Your task to perform on an android device: change the upload size in google photos Image 0: 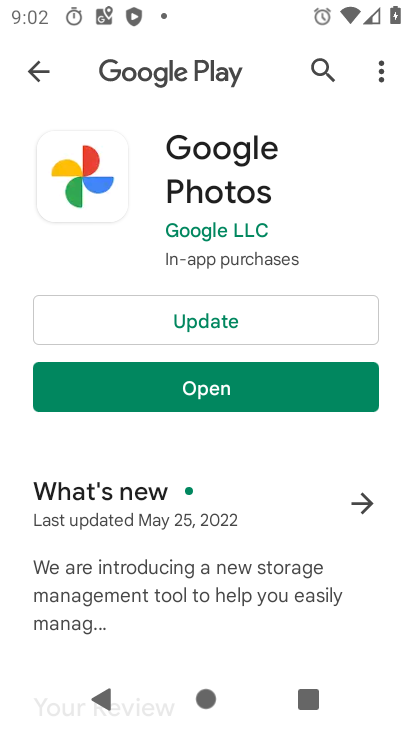
Step 0: click (245, 393)
Your task to perform on an android device: change the upload size in google photos Image 1: 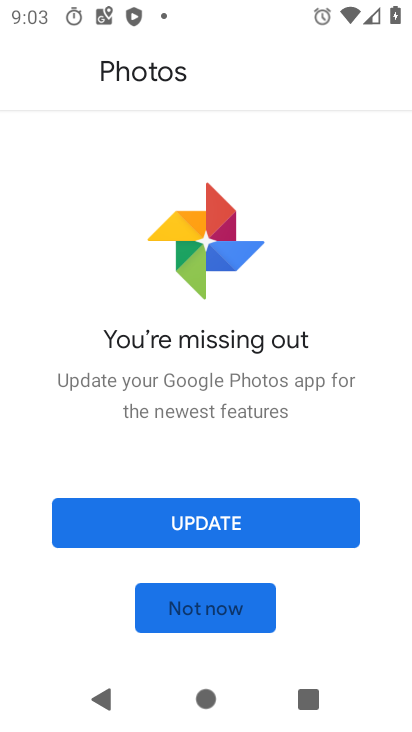
Step 1: click (210, 614)
Your task to perform on an android device: change the upload size in google photos Image 2: 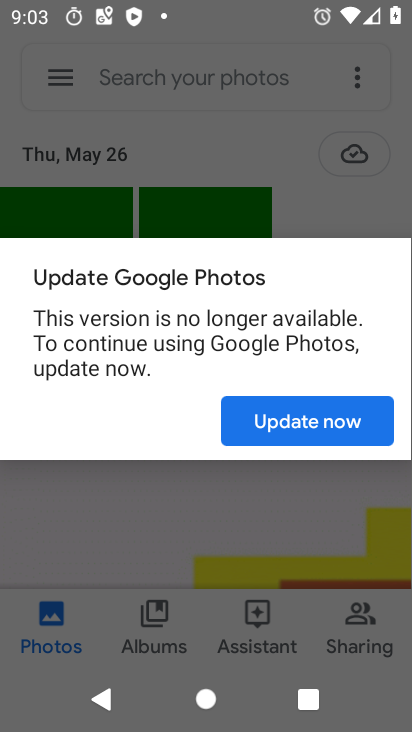
Step 2: click (297, 437)
Your task to perform on an android device: change the upload size in google photos Image 3: 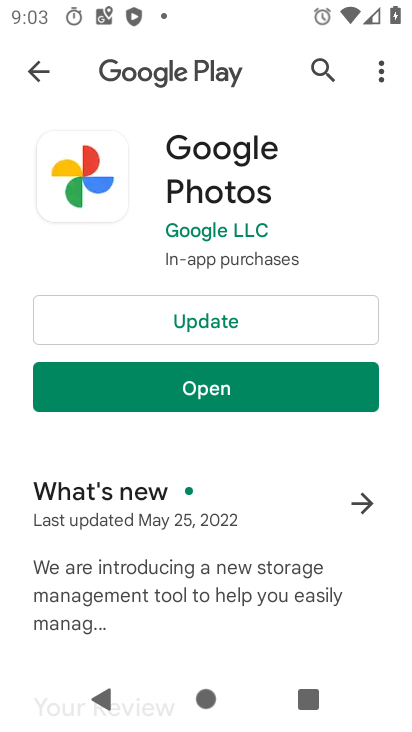
Step 3: click (205, 398)
Your task to perform on an android device: change the upload size in google photos Image 4: 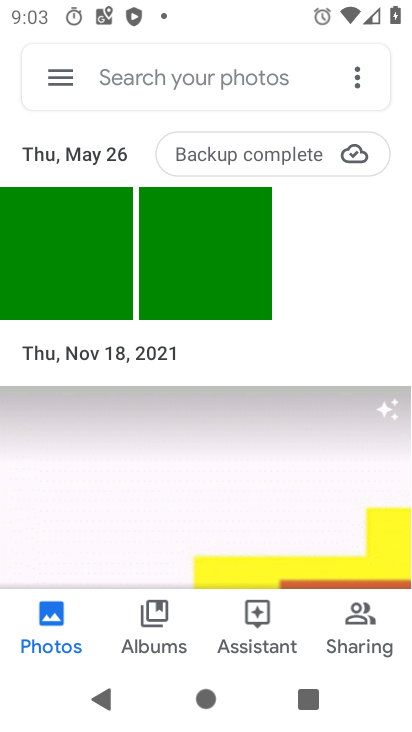
Step 4: click (56, 78)
Your task to perform on an android device: change the upload size in google photos Image 5: 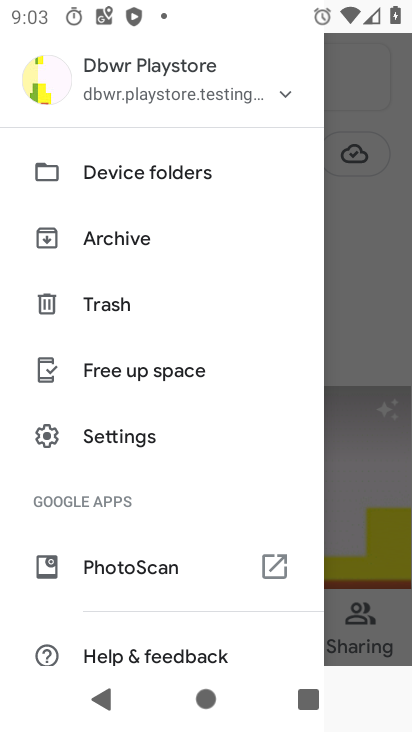
Step 5: click (129, 443)
Your task to perform on an android device: change the upload size in google photos Image 6: 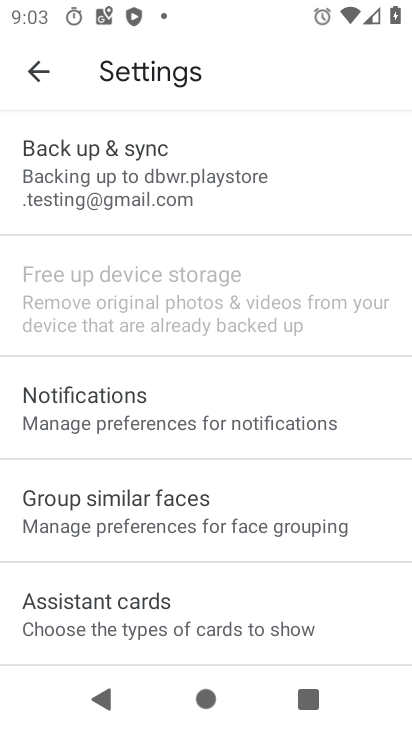
Step 6: click (99, 187)
Your task to perform on an android device: change the upload size in google photos Image 7: 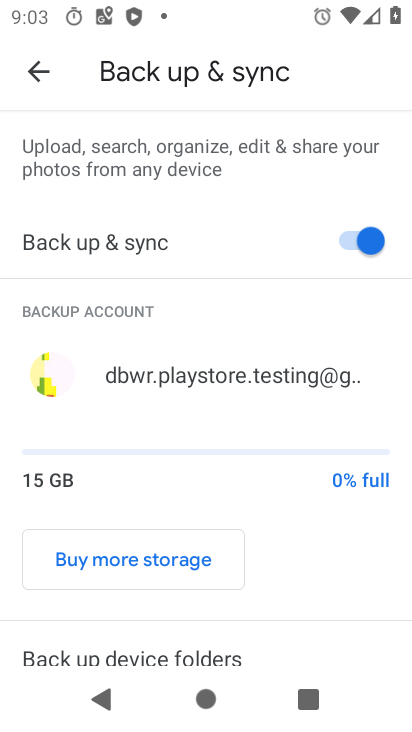
Step 7: drag from (160, 467) to (143, 172)
Your task to perform on an android device: change the upload size in google photos Image 8: 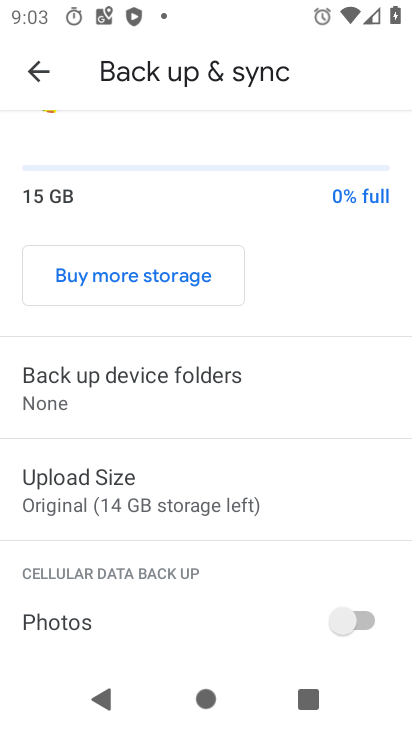
Step 8: click (42, 505)
Your task to perform on an android device: change the upload size in google photos Image 9: 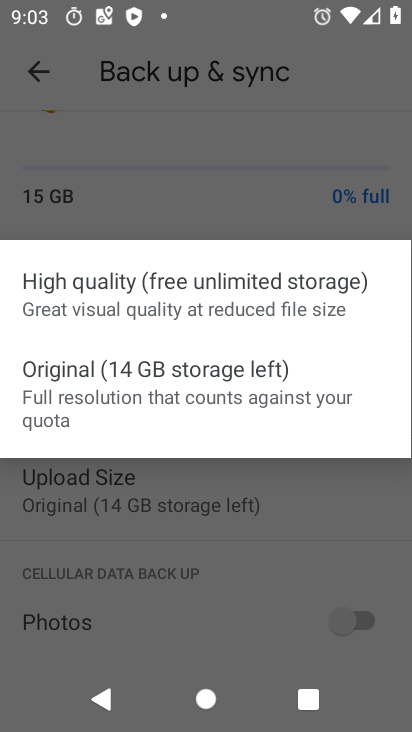
Step 9: click (58, 295)
Your task to perform on an android device: change the upload size in google photos Image 10: 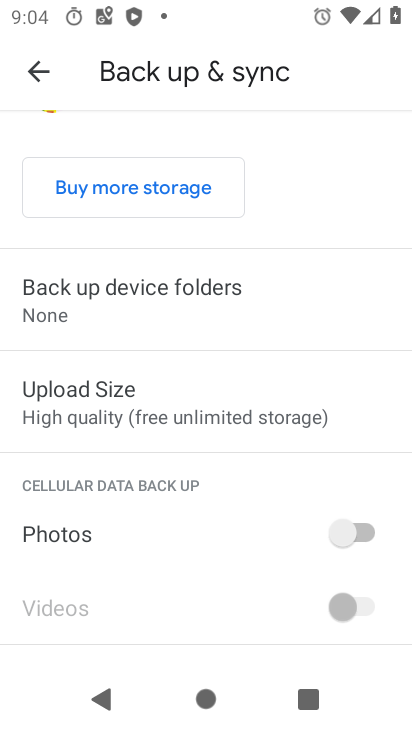
Step 10: task complete